Your task to perform on an android device: turn on location history Image 0: 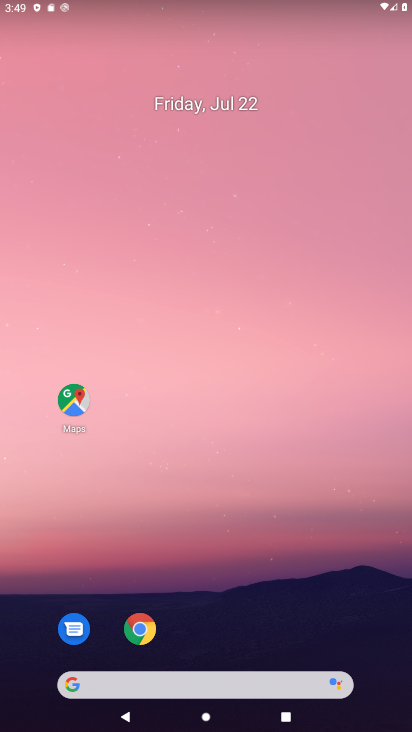
Step 0: drag from (285, 595) to (314, 41)
Your task to perform on an android device: turn on location history Image 1: 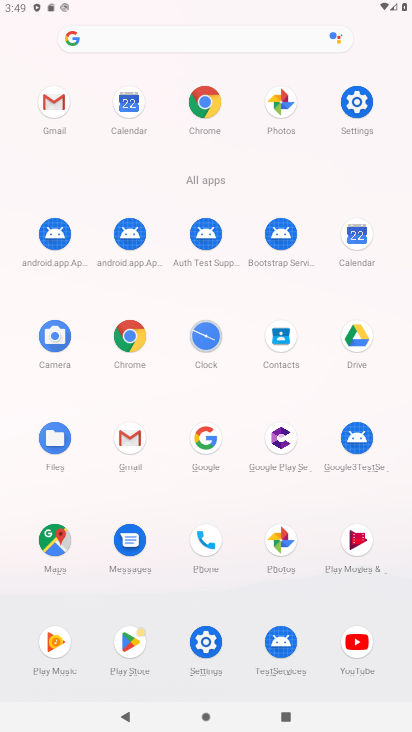
Step 1: click (362, 99)
Your task to perform on an android device: turn on location history Image 2: 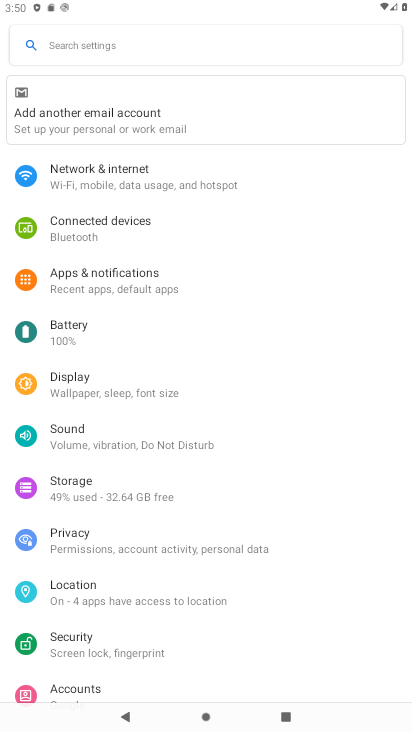
Step 2: click (117, 578)
Your task to perform on an android device: turn on location history Image 3: 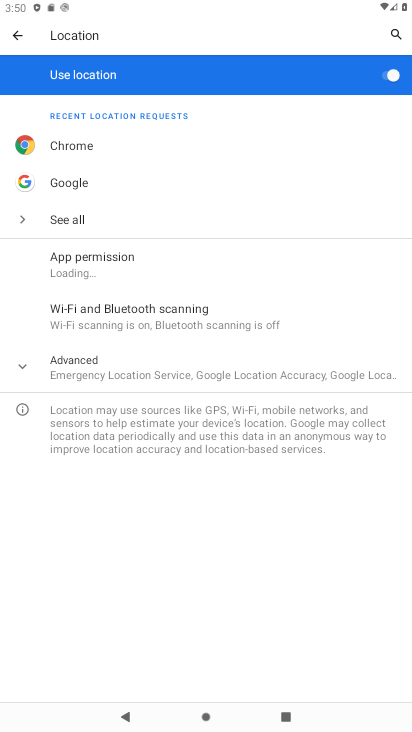
Step 3: click (171, 364)
Your task to perform on an android device: turn on location history Image 4: 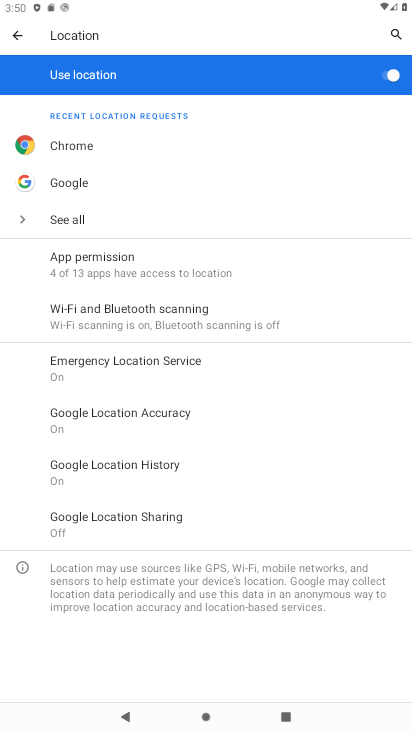
Step 4: click (141, 470)
Your task to perform on an android device: turn on location history Image 5: 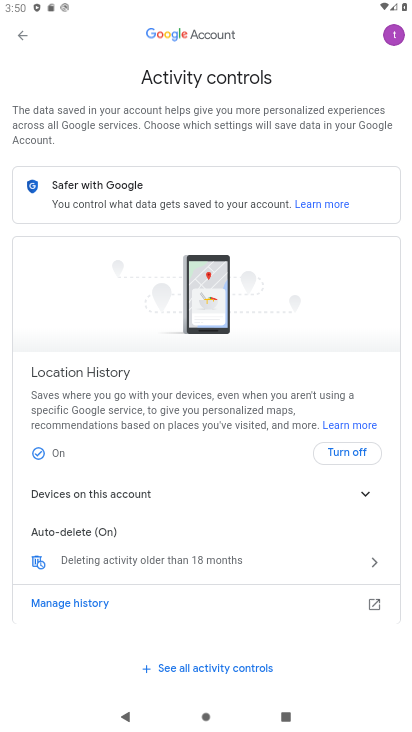
Step 5: task complete